Your task to perform on an android device: delete location history Image 0: 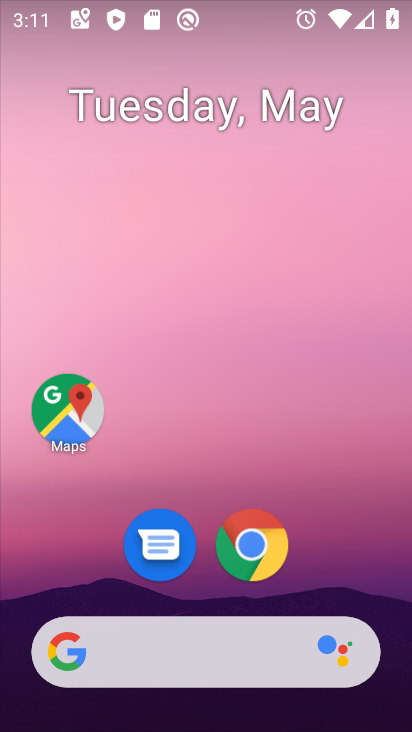
Step 0: click (81, 412)
Your task to perform on an android device: delete location history Image 1: 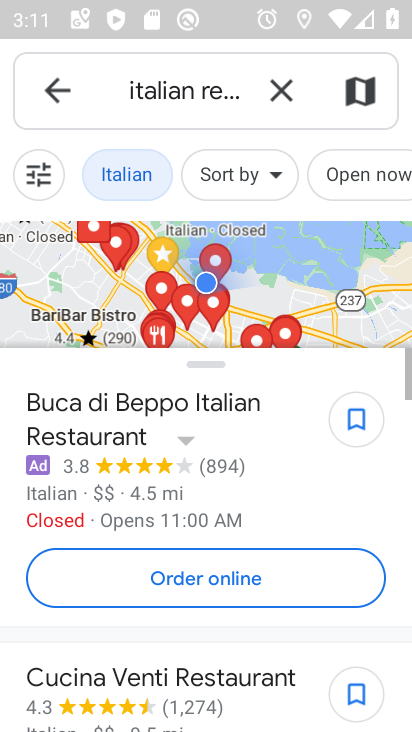
Step 1: click (59, 93)
Your task to perform on an android device: delete location history Image 2: 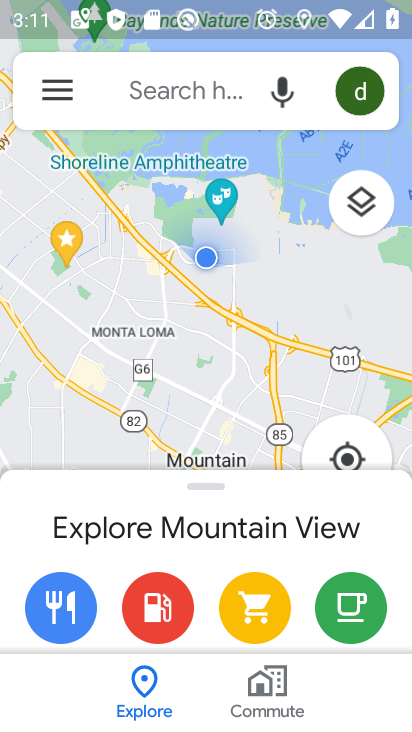
Step 2: click (61, 81)
Your task to perform on an android device: delete location history Image 3: 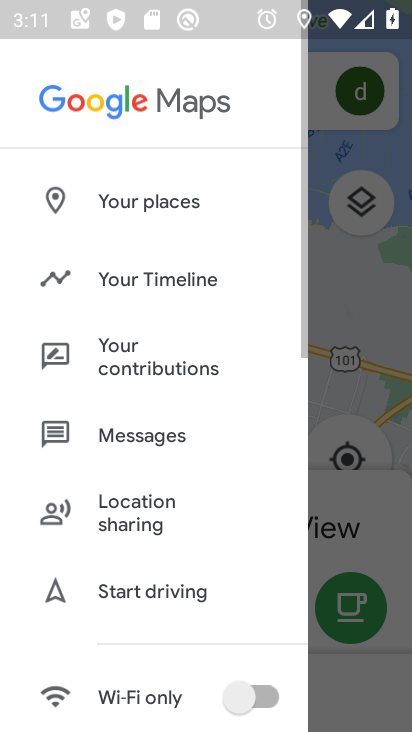
Step 3: click (142, 279)
Your task to perform on an android device: delete location history Image 4: 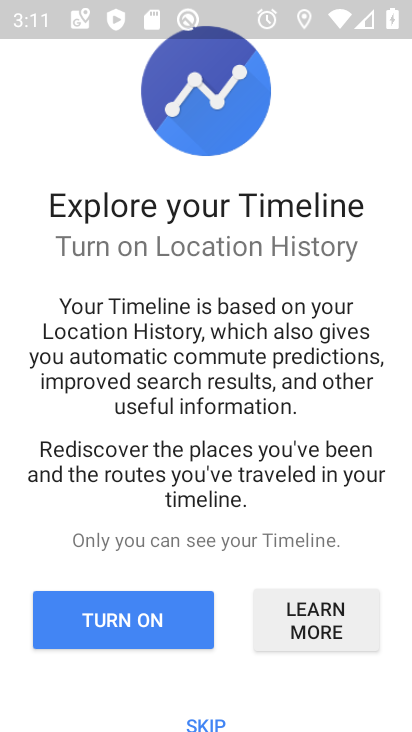
Step 4: click (126, 614)
Your task to perform on an android device: delete location history Image 5: 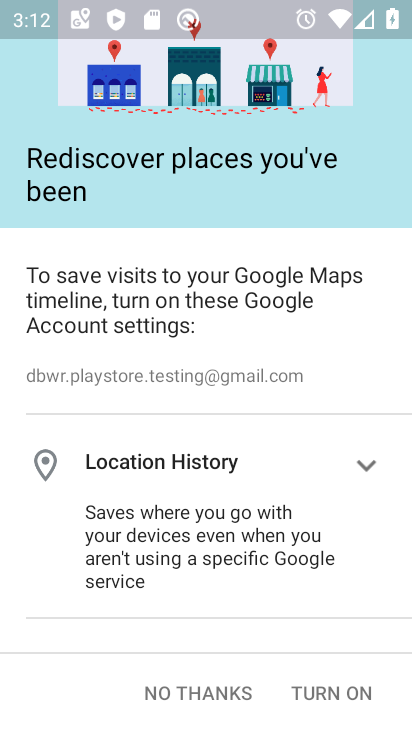
Step 5: click (335, 695)
Your task to perform on an android device: delete location history Image 6: 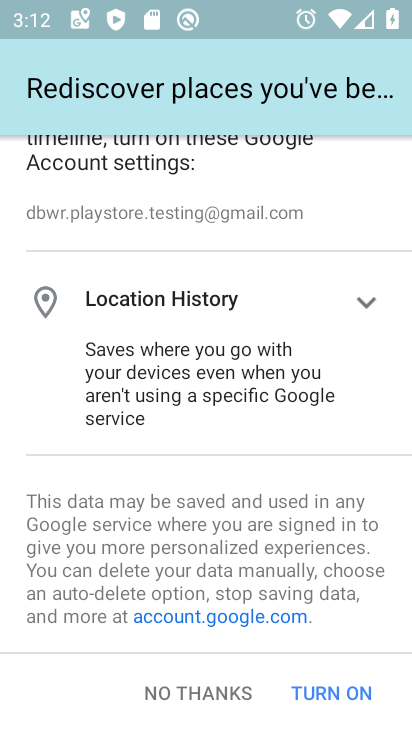
Step 6: click (355, 681)
Your task to perform on an android device: delete location history Image 7: 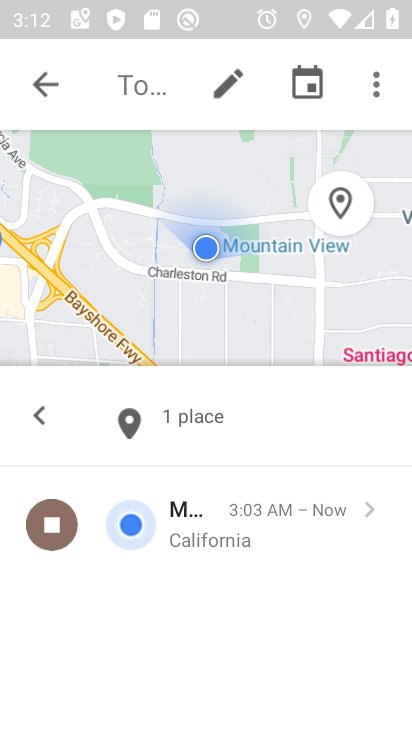
Step 7: click (363, 93)
Your task to perform on an android device: delete location history Image 8: 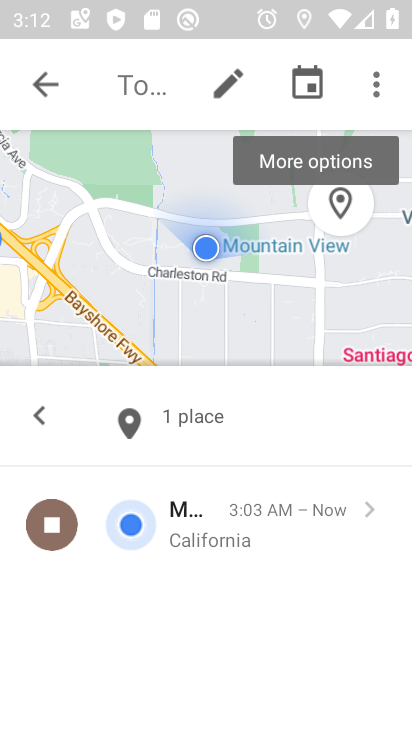
Step 8: click (381, 87)
Your task to perform on an android device: delete location history Image 9: 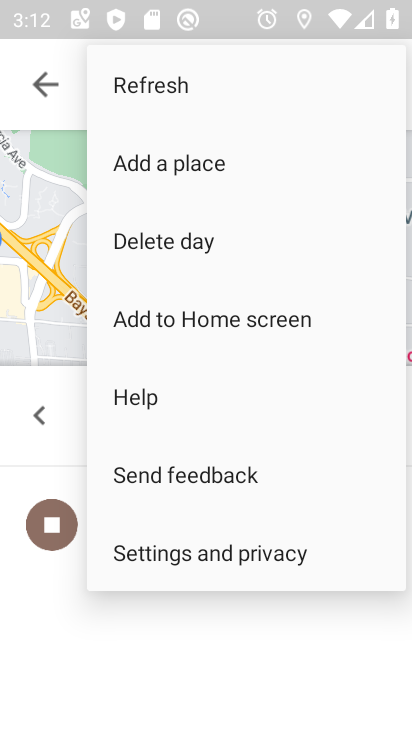
Step 9: drag from (202, 238) to (209, 93)
Your task to perform on an android device: delete location history Image 10: 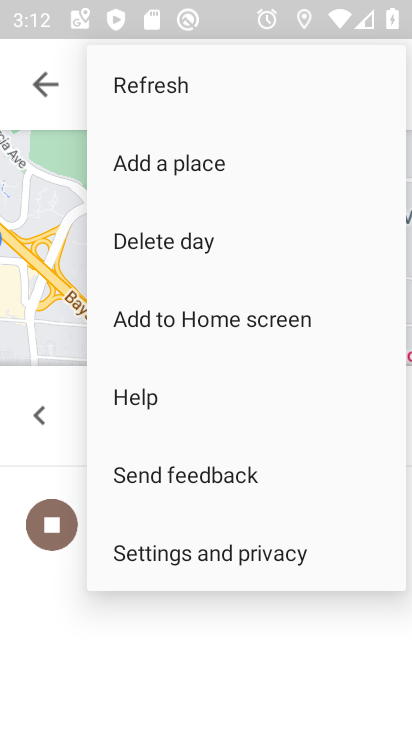
Step 10: click (203, 551)
Your task to perform on an android device: delete location history Image 11: 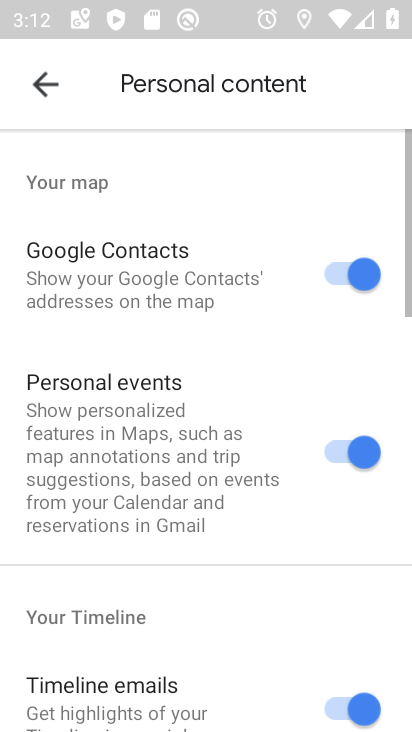
Step 11: drag from (174, 513) to (176, 121)
Your task to perform on an android device: delete location history Image 12: 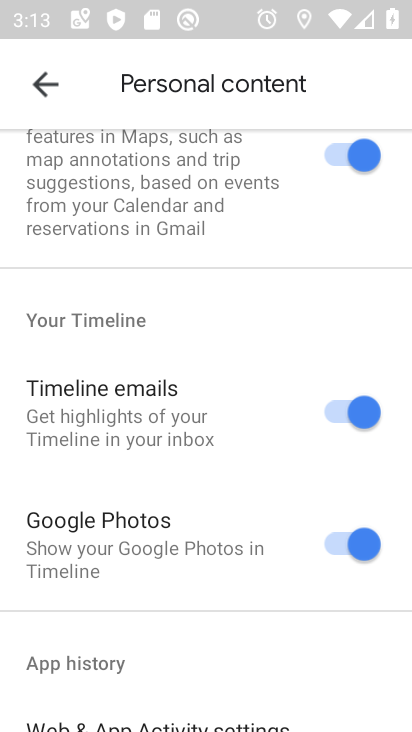
Step 12: drag from (219, 600) to (198, 80)
Your task to perform on an android device: delete location history Image 13: 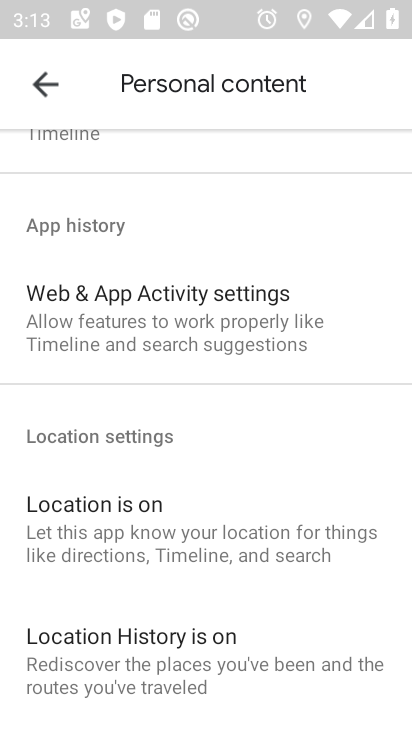
Step 13: drag from (230, 642) to (201, 259)
Your task to perform on an android device: delete location history Image 14: 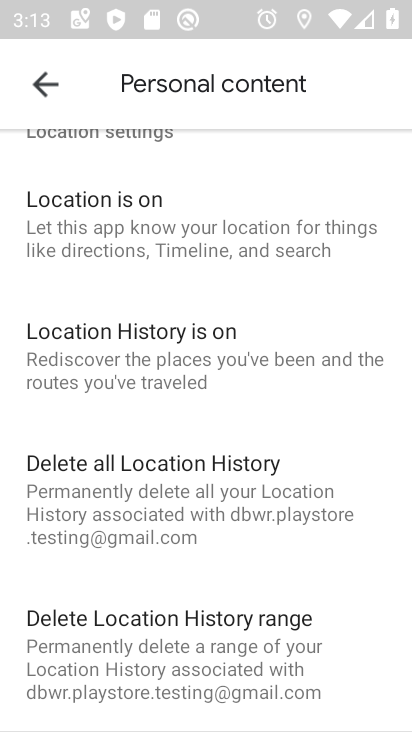
Step 14: click (252, 535)
Your task to perform on an android device: delete location history Image 15: 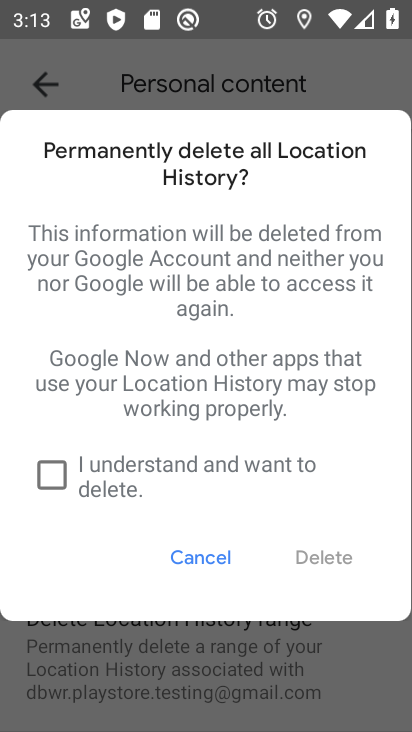
Step 15: click (54, 476)
Your task to perform on an android device: delete location history Image 16: 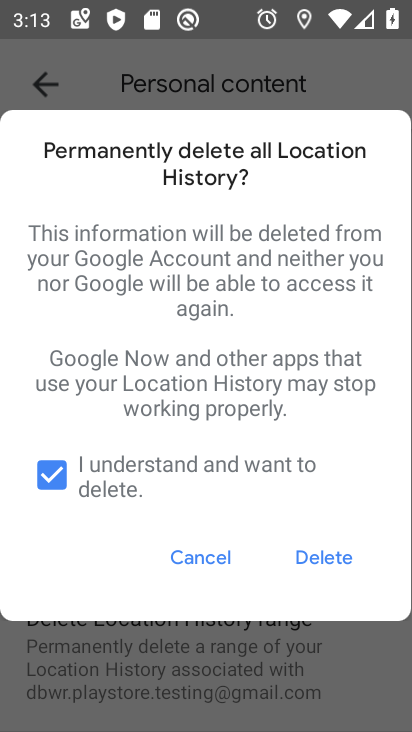
Step 16: click (307, 557)
Your task to perform on an android device: delete location history Image 17: 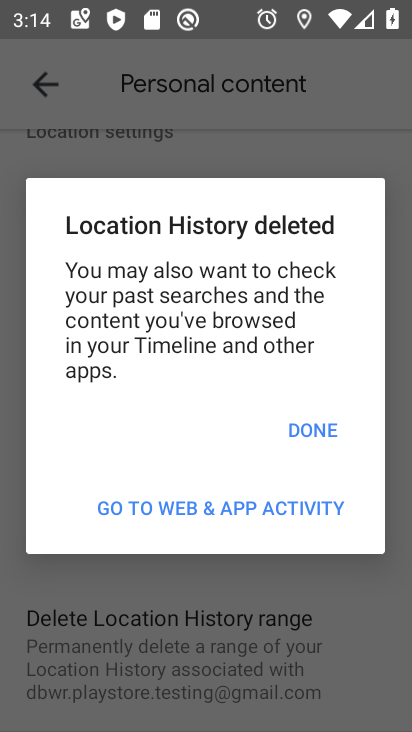
Step 17: press home button
Your task to perform on an android device: delete location history Image 18: 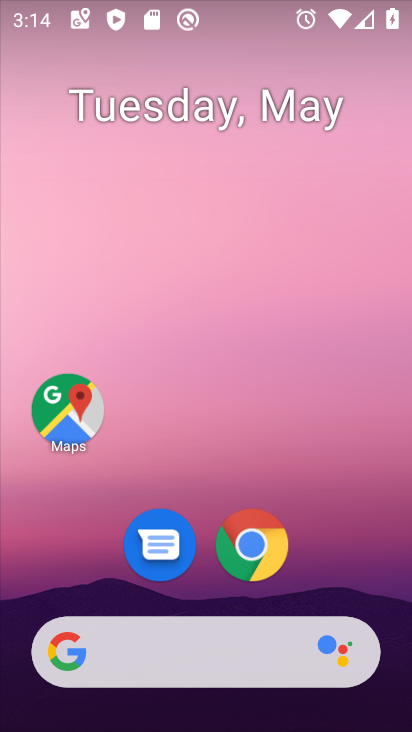
Step 18: click (65, 414)
Your task to perform on an android device: delete location history Image 19: 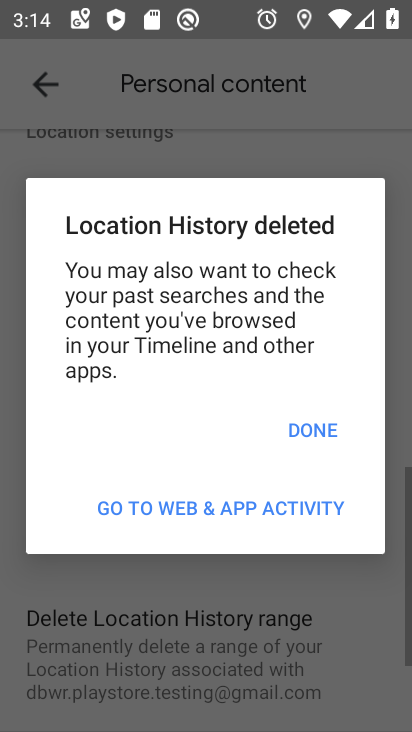
Step 19: click (322, 423)
Your task to perform on an android device: delete location history Image 20: 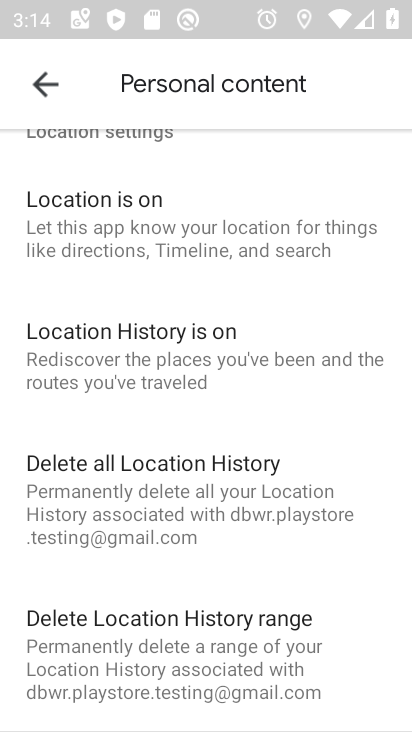
Step 20: click (179, 516)
Your task to perform on an android device: delete location history Image 21: 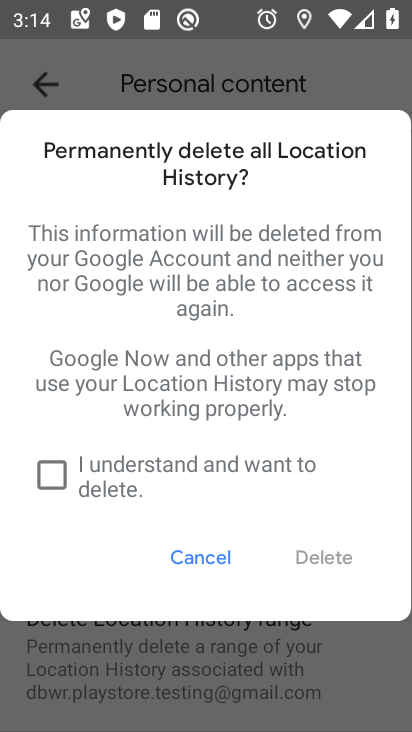
Step 21: click (185, 468)
Your task to perform on an android device: delete location history Image 22: 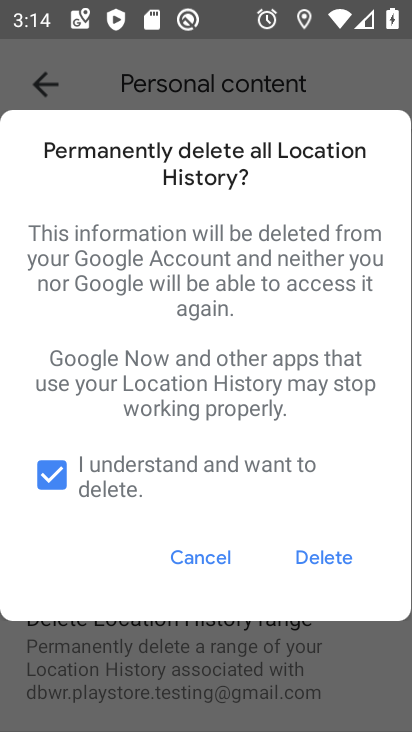
Step 22: click (347, 570)
Your task to perform on an android device: delete location history Image 23: 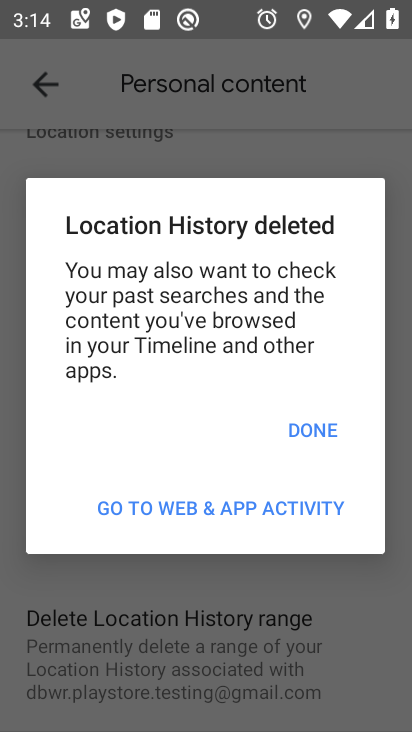
Step 23: click (323, 424)
Your task to perform on an android device: delete location history Image 24: 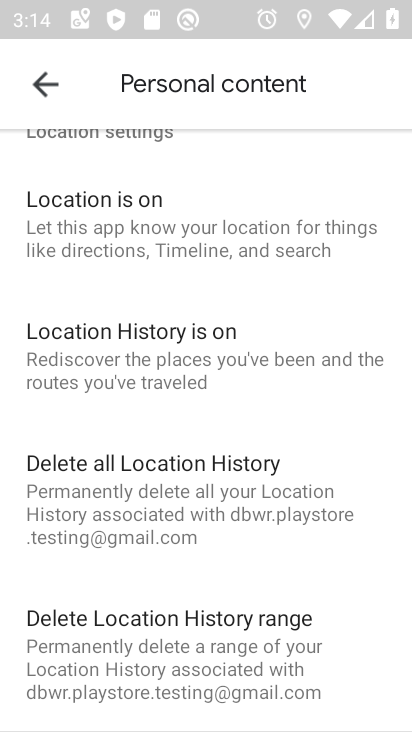
Step 24: task complete